Your task to perform on an android device: turn on airplane mode Image 0: 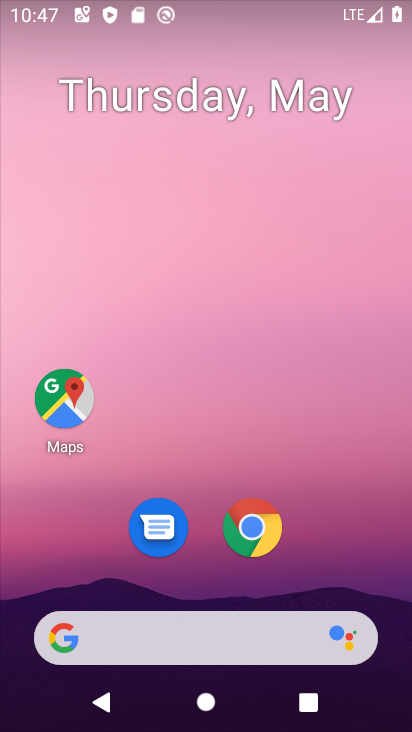
Step 0: drag from (269, 0) to (255, 600)
Your task to perform on an android device: turn on airplane mode Image 1: 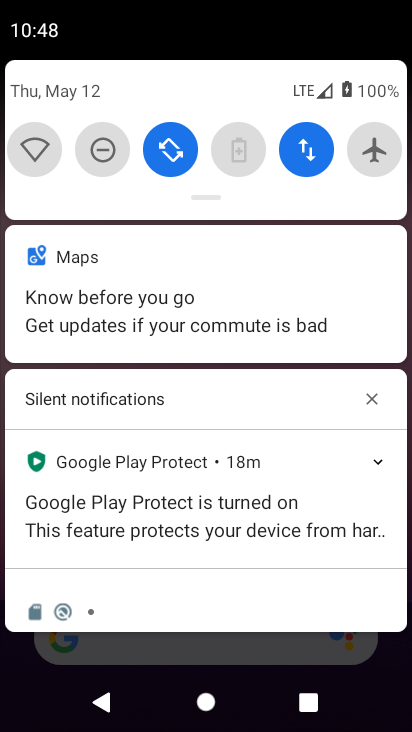
Step 1: click (375, 144)
Your task to perform on an android device: turn on airplane mode Image 2: 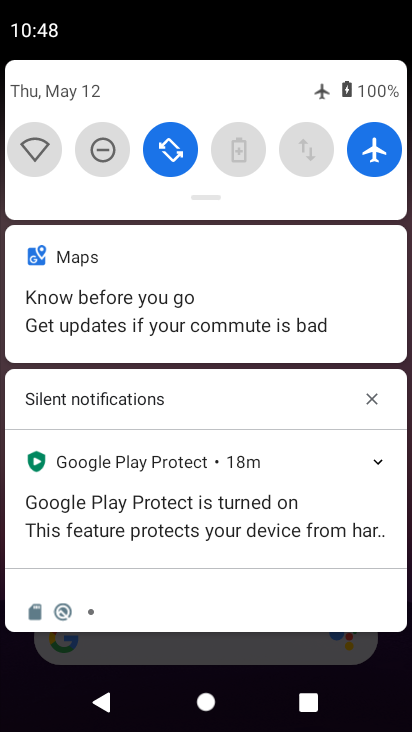
Step 2: task complete